Your task to perform on an android device: check out phone information Image 0: 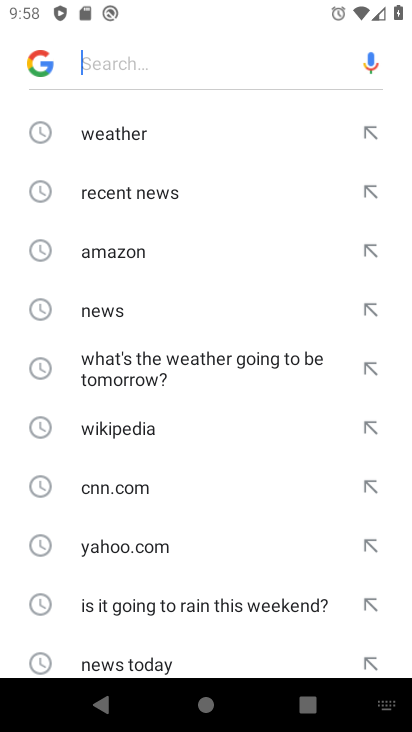
Step 0: press home button
Your task to perform on an android device: check out phone information Image 1: 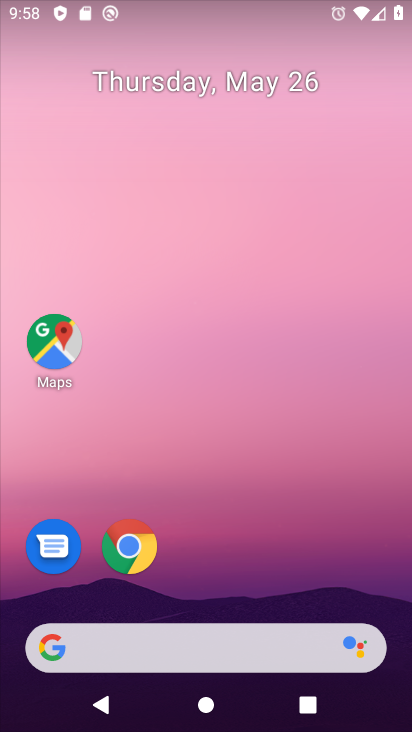
Step 1: drag from (246, 580) to (252, 23)
Your task to perform on an android device: check out phone information Image 2: 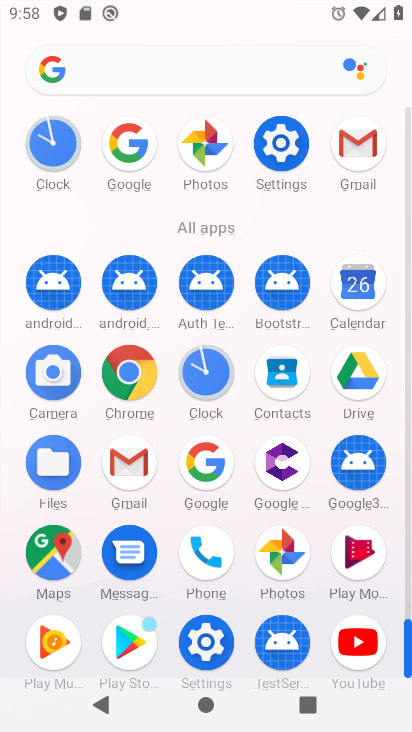
Step 2: click (283, 142)
Your task to perform on an android device: check out phone information Image 3: 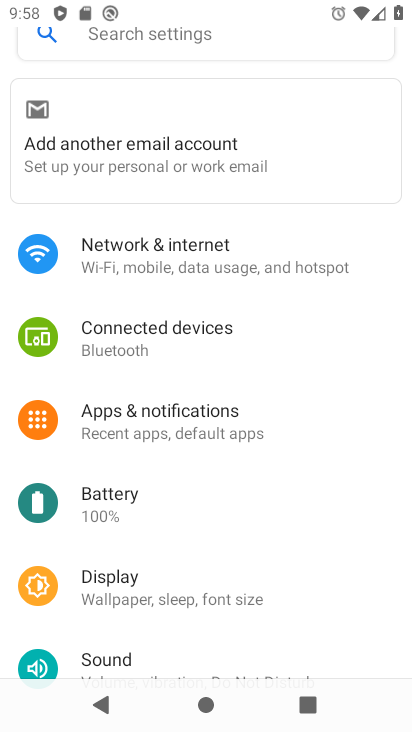
Step 3: drag from (166, 363) to (222, 276)
Your task to perform on an android device: check out phone information Image 4: 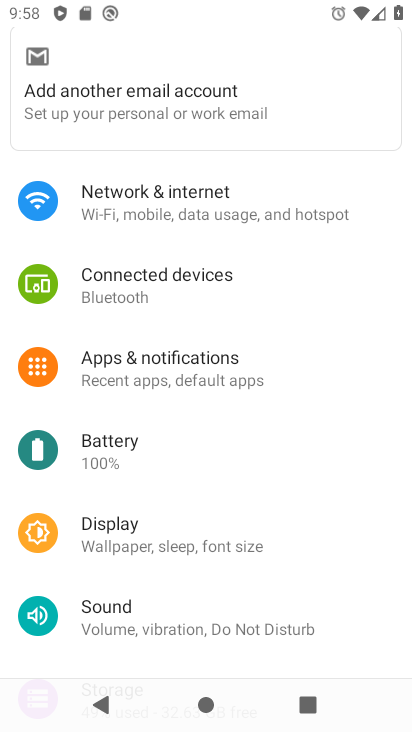
Step 4: drag from (151, 400) to (249, 288)
Your task to perform on an android device: check out phone information Image 5: 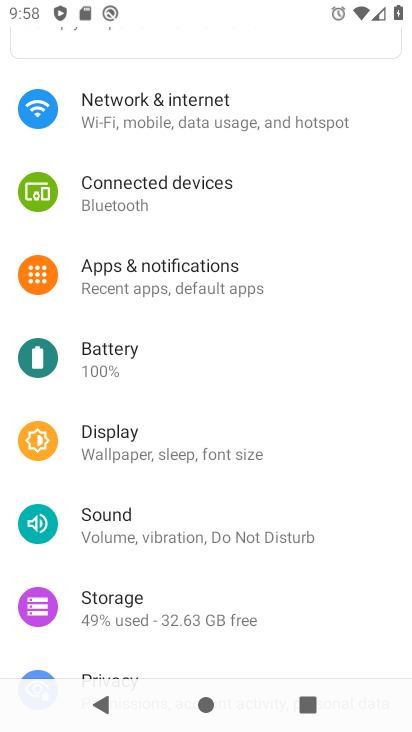
Step 5: click (192, 321)
Your task to perform on an android device: check out phone information Image 6: 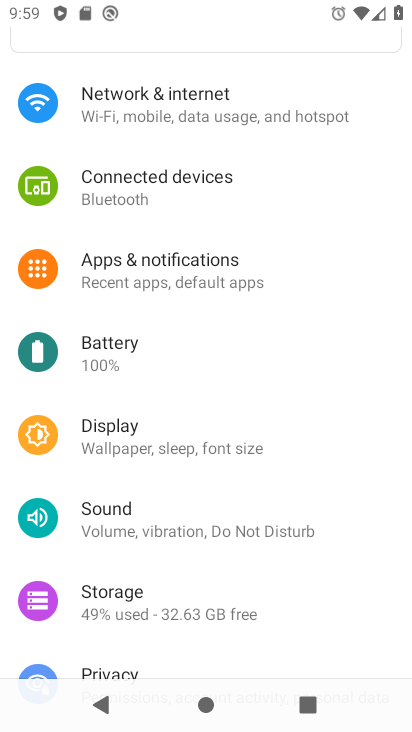
Step 6: drag from (144, 485) to (198, 413)
Your task to perform on an android device: check out phone information Image 7: 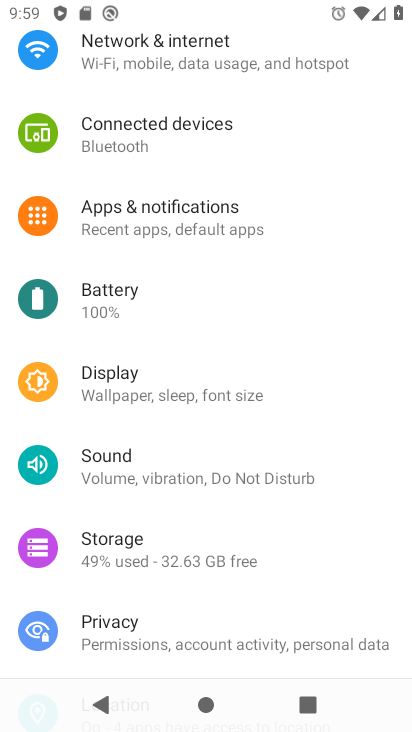
Step 7: drag from (148, 518) to (185, 446)
Your task to perform on an android device: check out phone information Image 8: 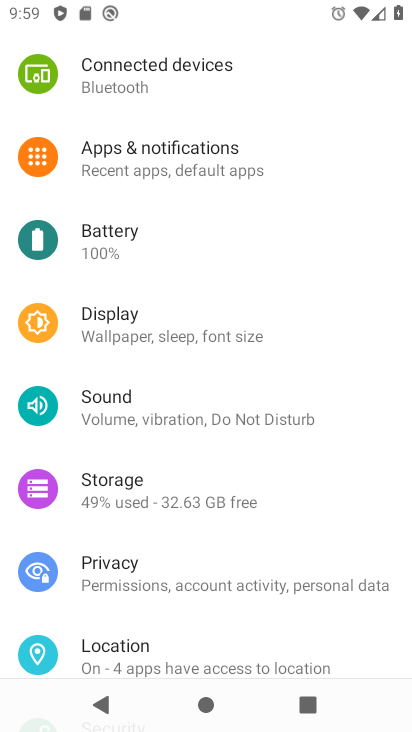
Step 8: drag from (126, 539) to (197, 451)
Your task to perform on an android device: check out phone information Image 9: 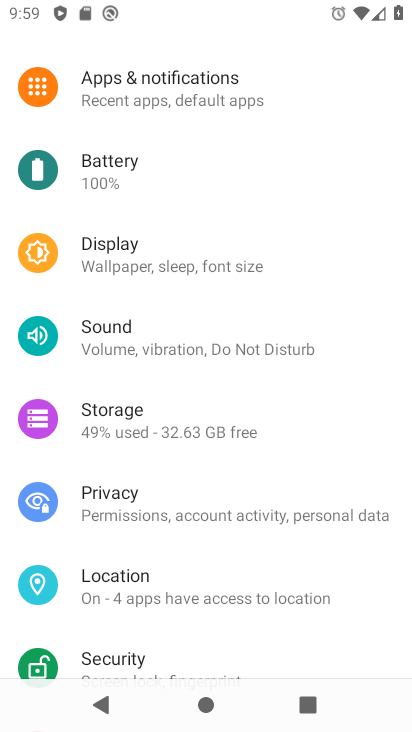
Step 9: drag from (138, 546) to (196, 477)
Your task to perform on an android device: check out phone information Image 10: 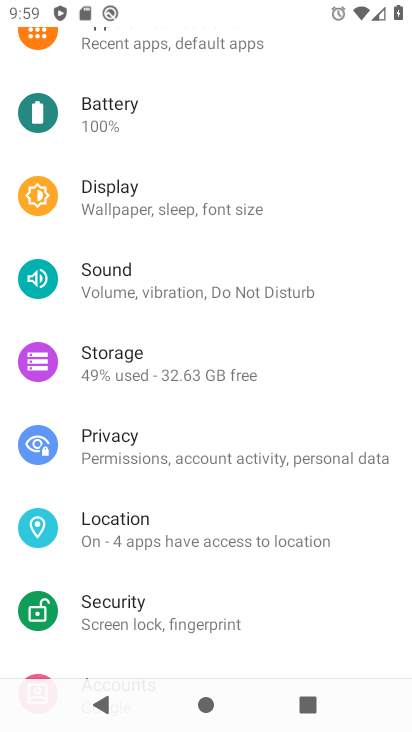
Step 10: drag from (173, 508) to (209, 436)
Your task to perform on an android device: check out phone information Image 11: 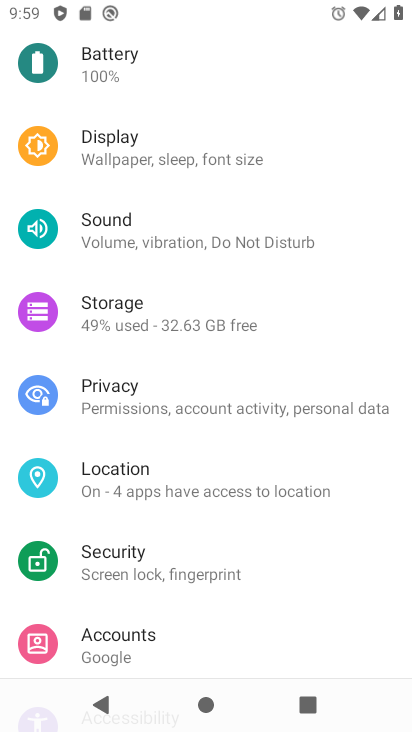
Step 11: drag from (166, 520) to (234, 425)
Your task to perform on an android device: check out phone information Image 12: 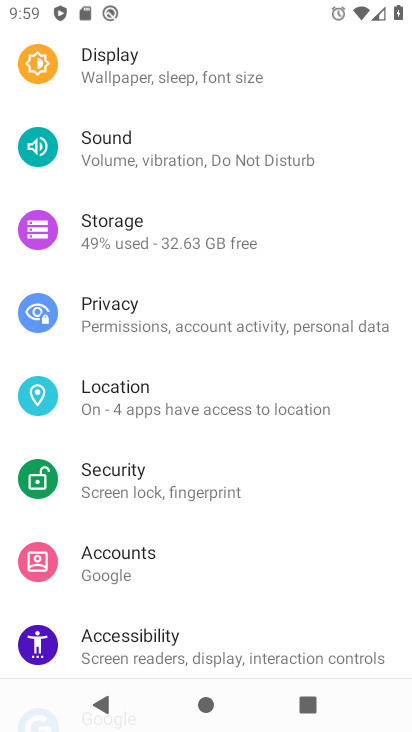
Step 12: drag from (134, 522) to (200, 437)
Your task to perform on an android device: check out phone information Image 13: 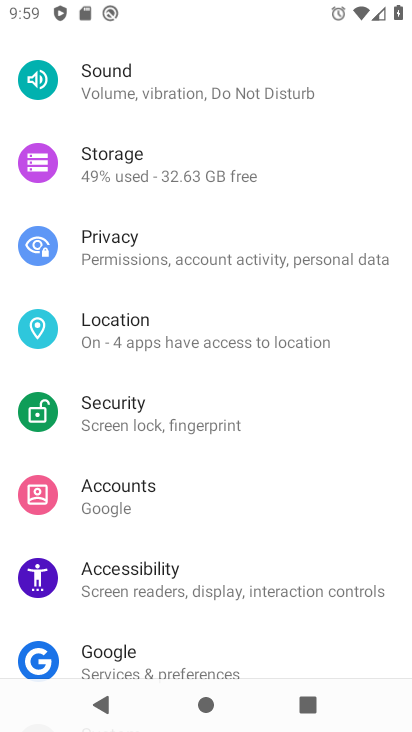
Step 13: drag from (132, 530) to (176, 459)
Your task to perform on an android device: check out phone information Image 14: 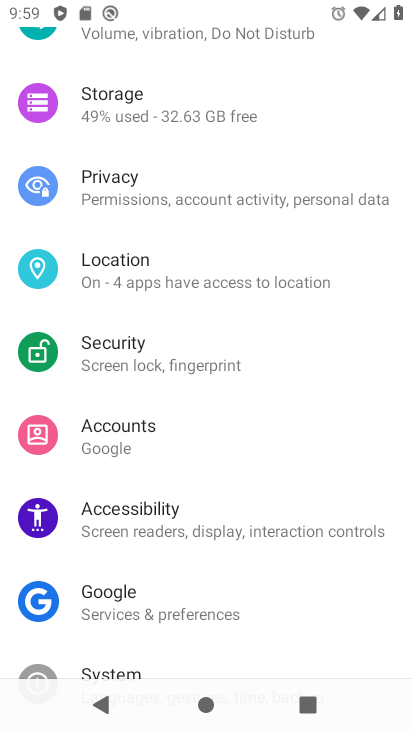
Step 14: drag from (124, 566) to (181, 484)
Your task to perform on an android device: check out phone information Image 15: 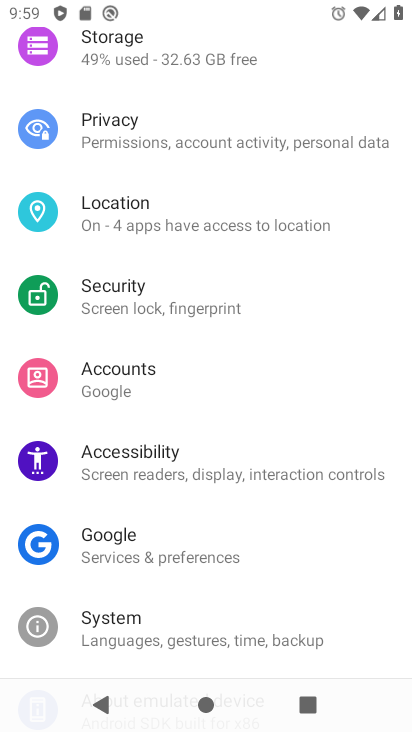
Step 15: drag from (134, 514) to (175, 414)
Your task to perform on an android device: check out phone information Image 16: 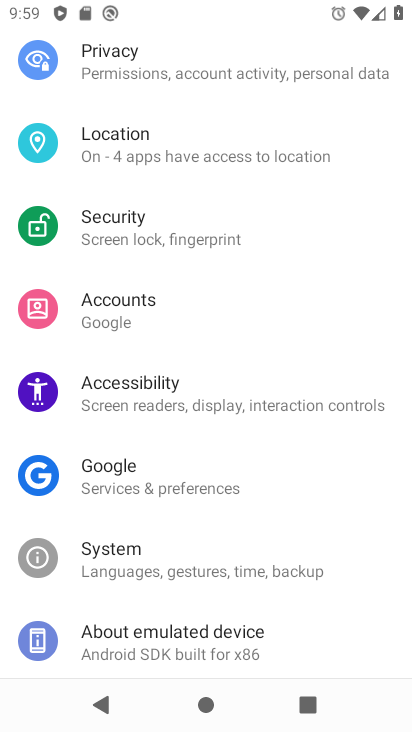
Step 16: click (176, 627)
Your task to perform on an android device: check out phone information Image 17: 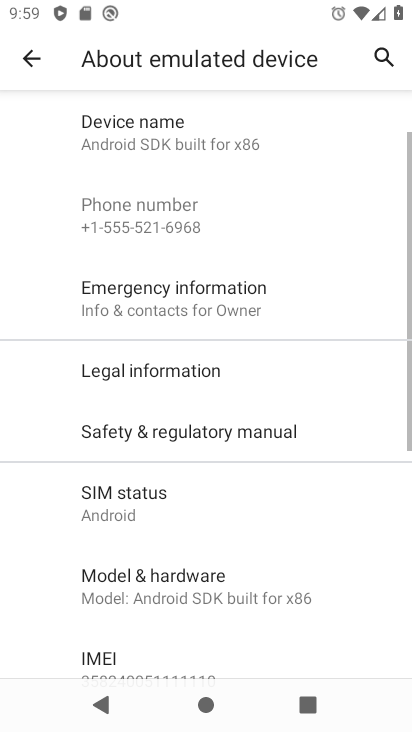
Step 17: task complete